Your task to perform on an android device: Open network settings Image 0: 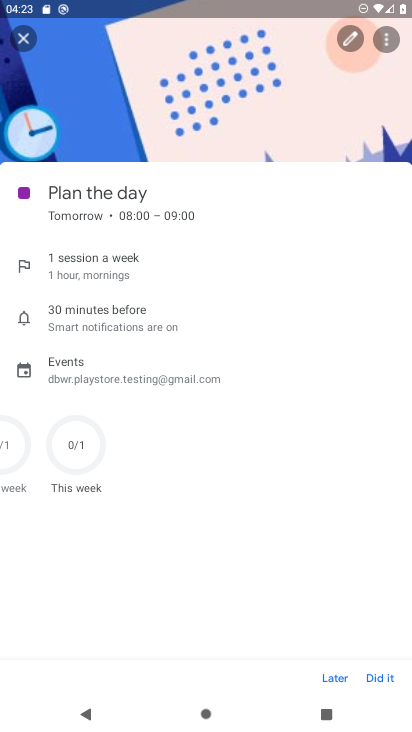
Step 0: press home button
Your task to perform on an android device: Open network settings Image 1: 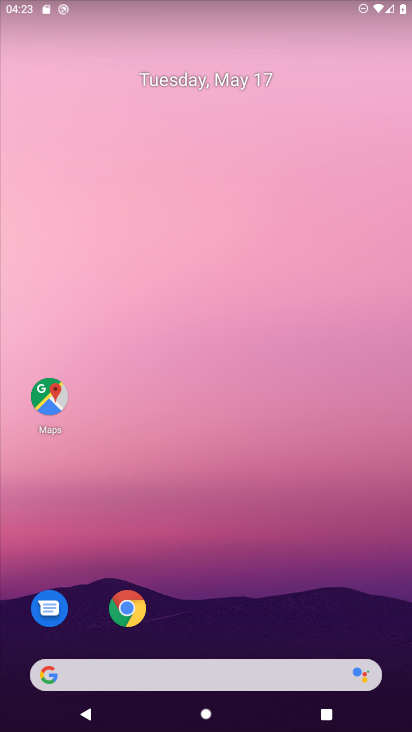
Step 1: drag from (189, 650) to (263, 312)
Your task to perform on an android device: Open network settings Image 2: 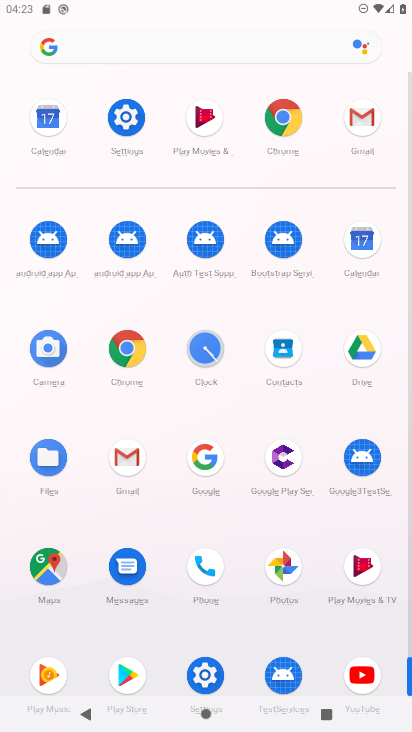
Step 2: click (126, 124)
Your task to perform on an android device: Open network settings Image 3: 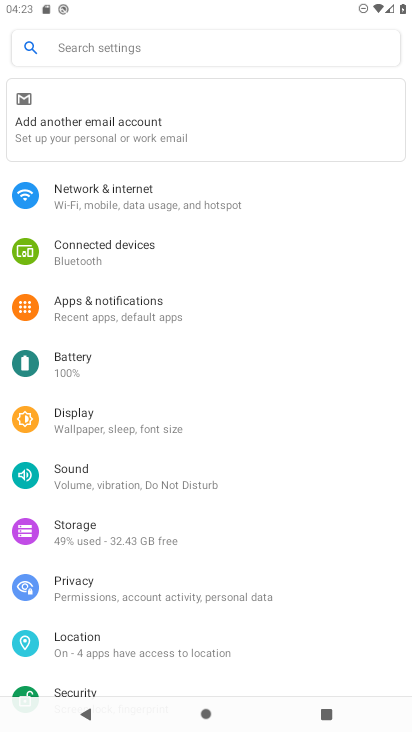
Step 3: click (102, 184)
Your task to perform on an android device: Open network settings Image 4: 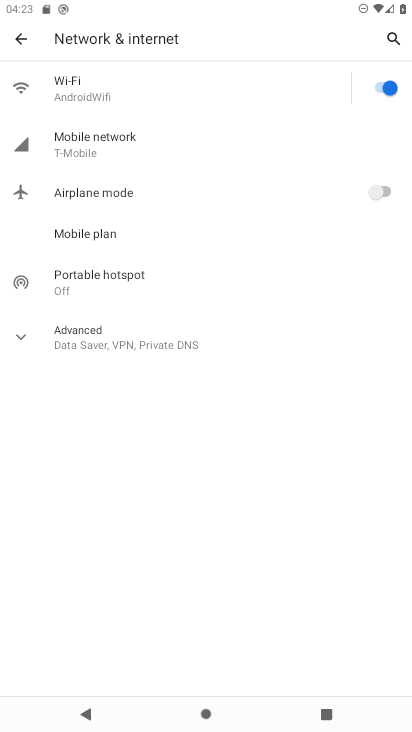
Step 4: click (86, 333)
Your task to perform on an android device: Open network settings Image 5: 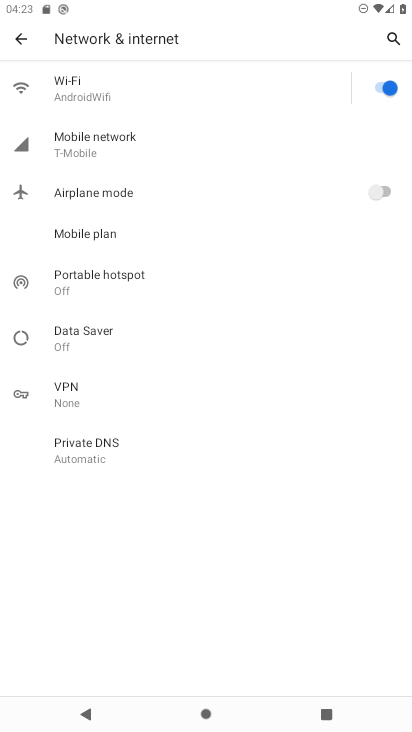
Step 5: task complete